Your task to perform on an android device: What is the recent news? Image 0: 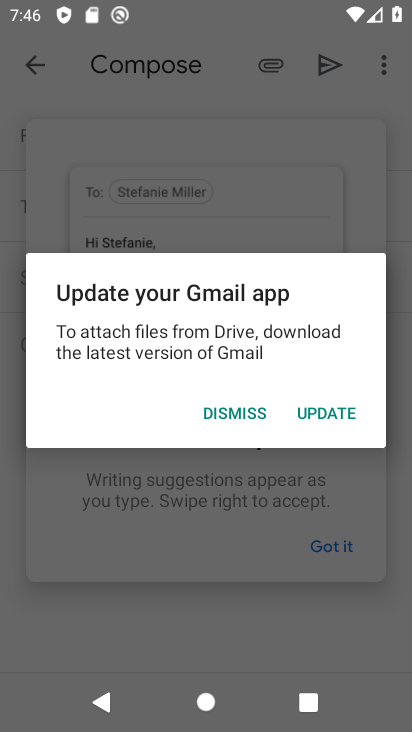
Step 0: press home button
Your task to perform on an android device: What is the recent news? Image 1: 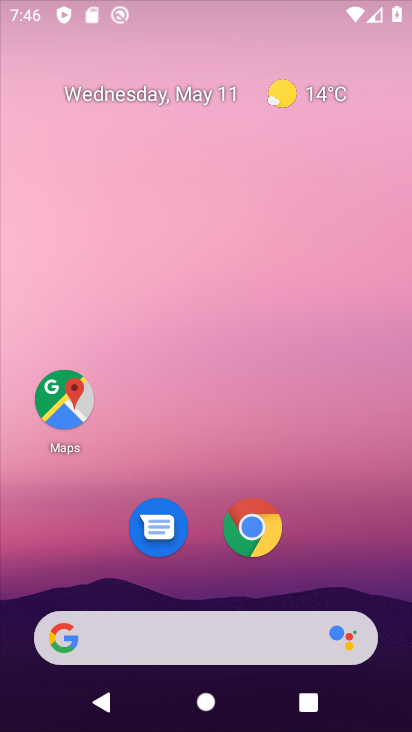
Step 1: drag from (210, 642) to (232, 13)
Your task to perform on an android device: What is the recent news? Image 2: 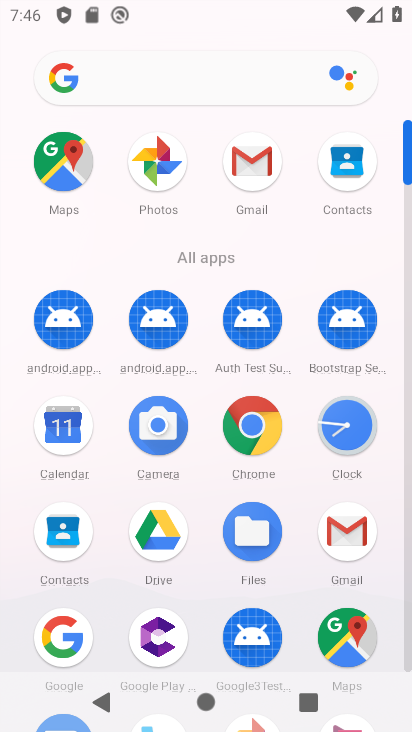
Step 2: drag from (165, 573) to (174, 345)
Your task to perform on an android device: What is the recent news? Image 3: 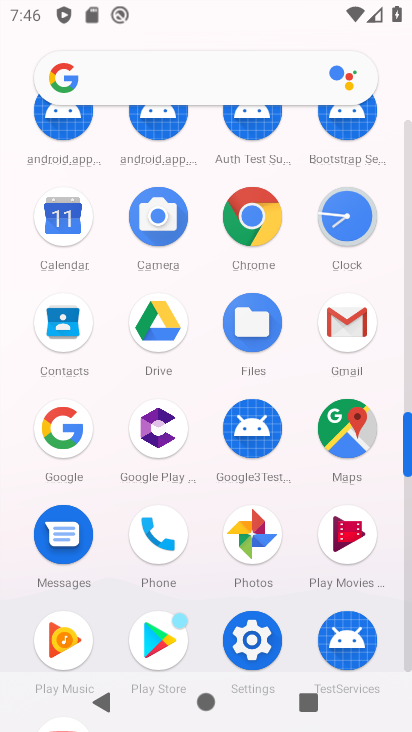
Step 3: click (67, 464)
Your task to perform on an android device: What is the recent news? Image 4: 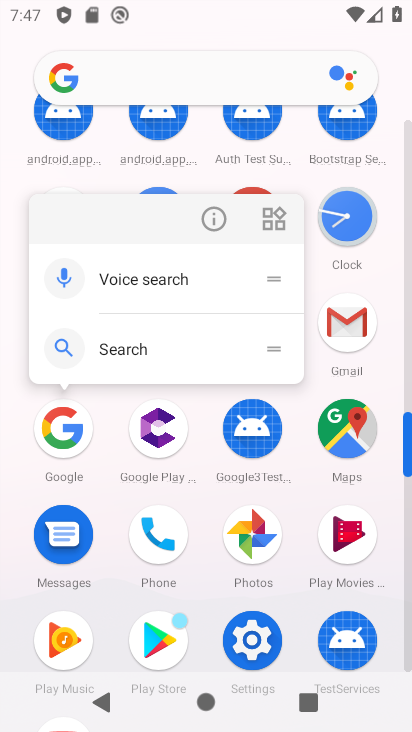
Step 4: click (67, 463)
Your task to perform on an android device: What is the recent news? Image 5: 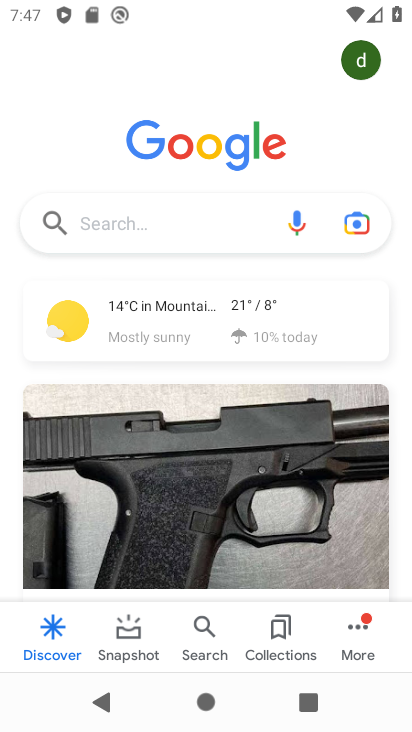
Step 5: click (149, 228)
Your task to perform on an android device: What is the recent news? Image 6: 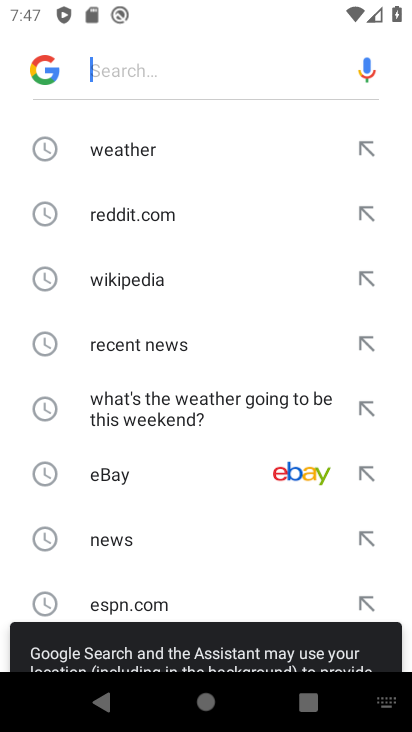
Step 6: click (167, 356)
Your task to perform on an android device: What is the recent news? Image 7: 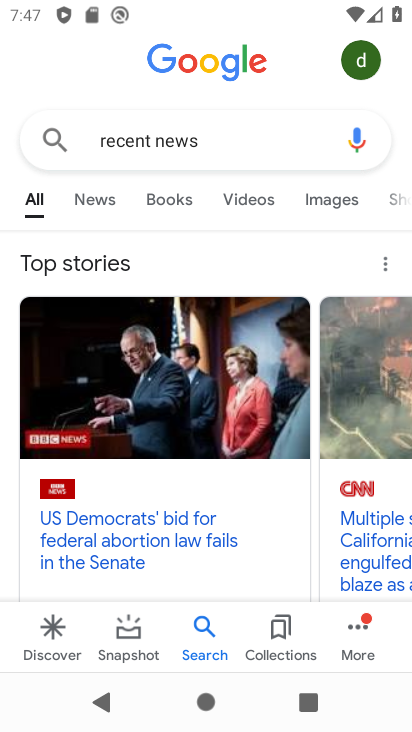
Step 7: click (86, 204)
Your task to perform on an android device: What is the recent news? Image 8: 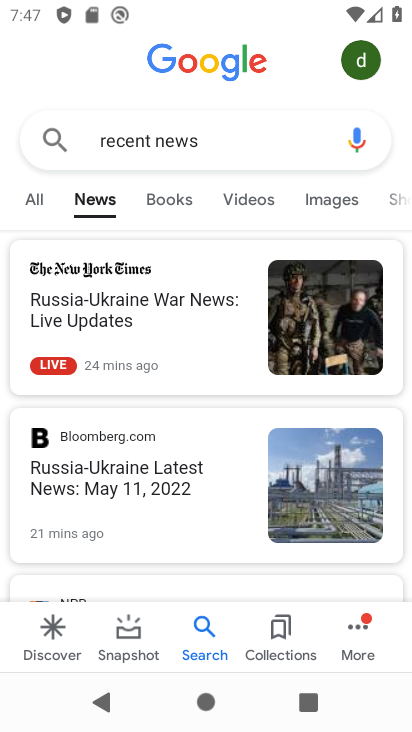
Step 8: task complete